Your task to perform on an android device: Search for flights from Sydney to Zurich Image 0: 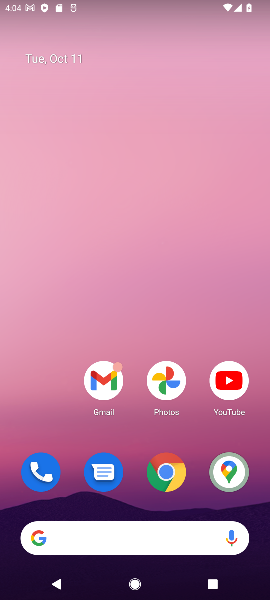
Step 0: click (120, 526)
Your task to perform on an android device: Search for flights from Sydney to Zurich Image 1: 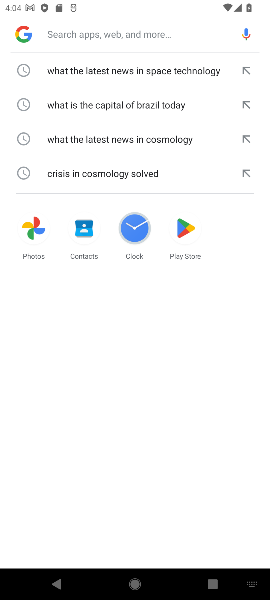
Step 1: type "Search for flights from Sydney to Zurich"
Your task to perform on an android device: Search for flights from Sydney to Zurich Image 2: 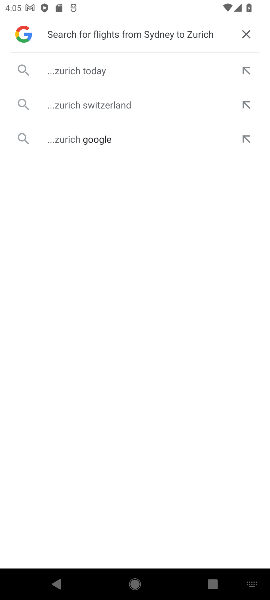
Step 2: click (81, 65)
Your task to perform on an android device: Search for flights from Sydney to Zurich Image 3: 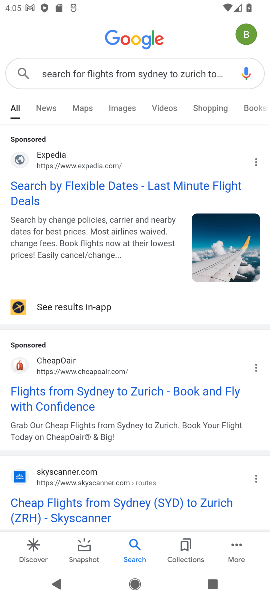
Step 3: task complete